Your task to perform on an android device: Search for seafood restaurants on Google Maps Image 0: 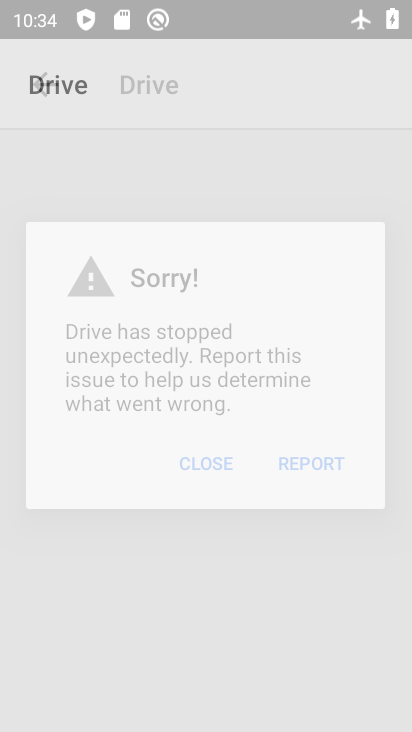
Step 0: drag from (346, 539) to (271, 200)
Your task to perform on an android device: Search for seafood restaurants on Google Maps Image 1: 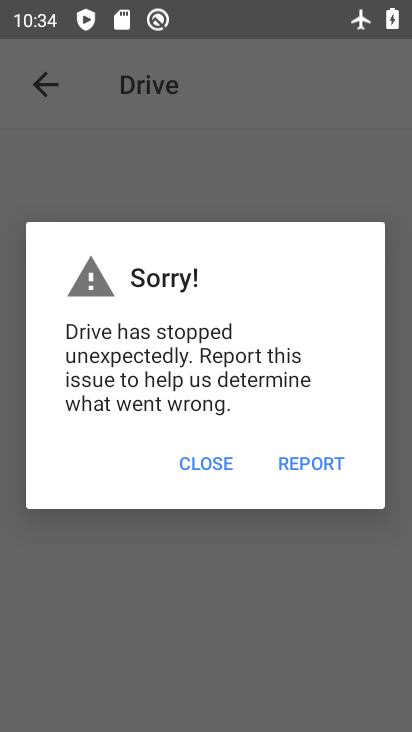
Step 1: press back button
Your task to perform on an android device: Search for seafood restaurants on Google Maps Image 2: 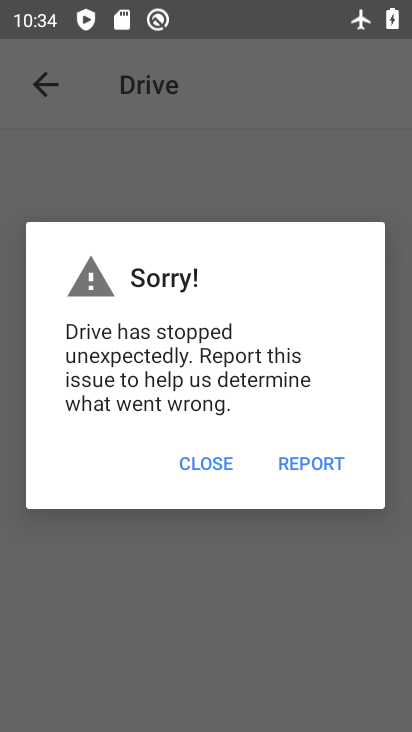
Step 2: press back button
Your task to perform on an android device: Search for seafood restaurants on Google Maps Image 3: 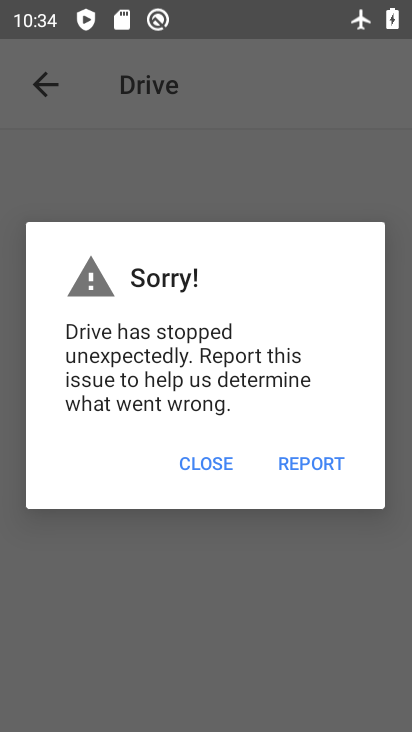
Step 3: press home button
Your task to perform on an android device: Search for seafood restaurants on Google Maps Image 4: 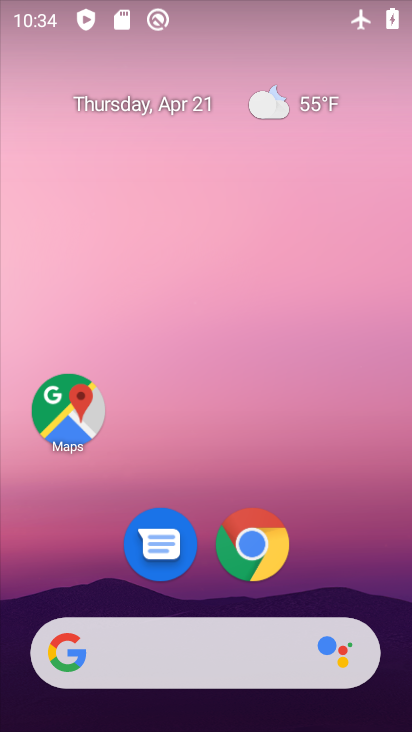
Step 4: click (73, 394)
Your task to perform on an android device: Search for seafood restaurants on Google Maps Image 5: 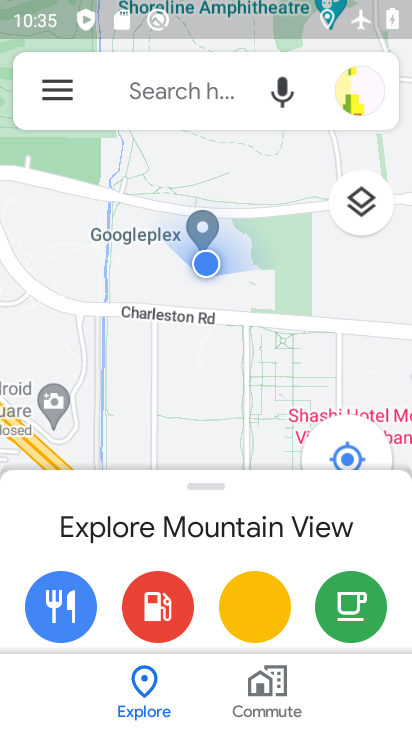
Step 5: click (142, 91)
Your task to perform on an android device: Search for seafood restaurants on Google Maps Image 6: 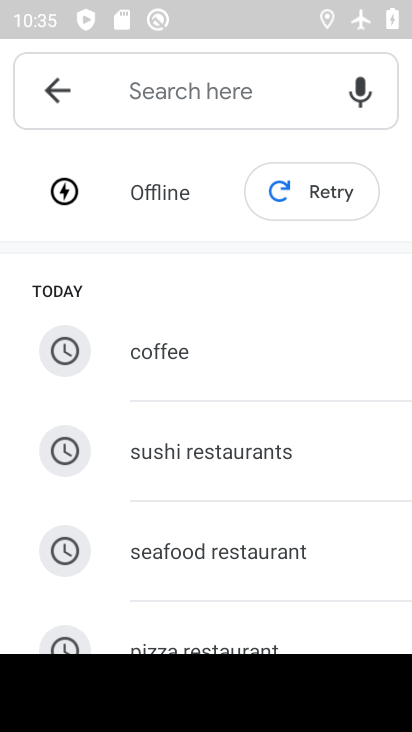
Step 6: type "seafood restaurants "
Your task to perform on an android device: Search for seafood restaurants on Google Maps Image 7: 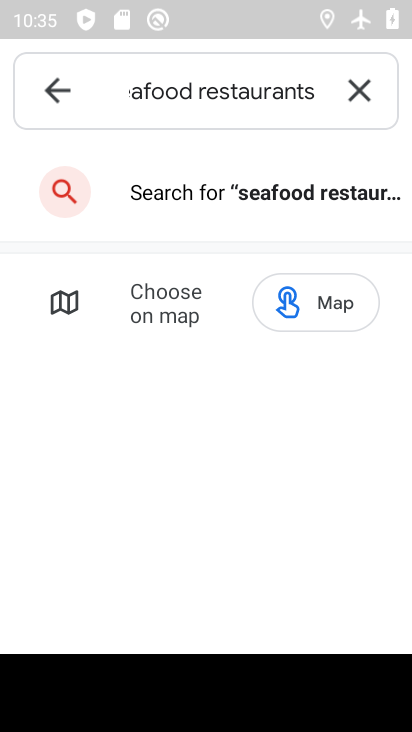
Step 7: click (276, 190)
Your task to perform on an android device: Search for seafood restaurants on Google Maps Image 8: 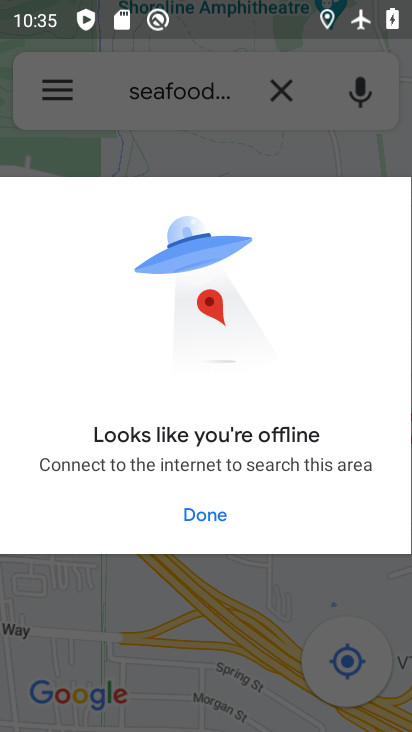
Step 8: task complete